Your task to perform on an android device: Go to Maps Image 0: 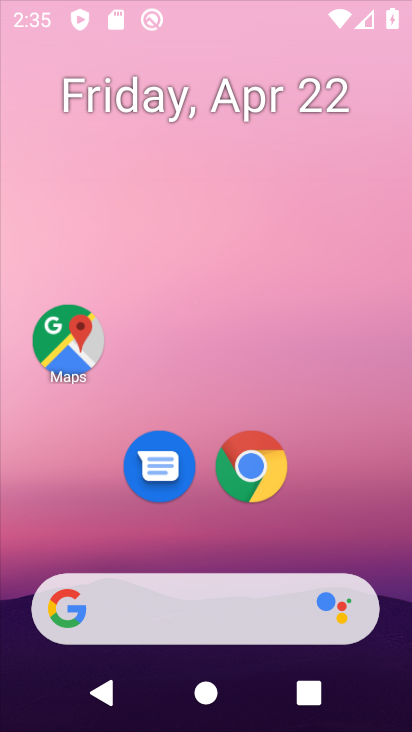
Step 0: click (255, 51)
Your task to perform on an android device: Go to Maps Image 1: 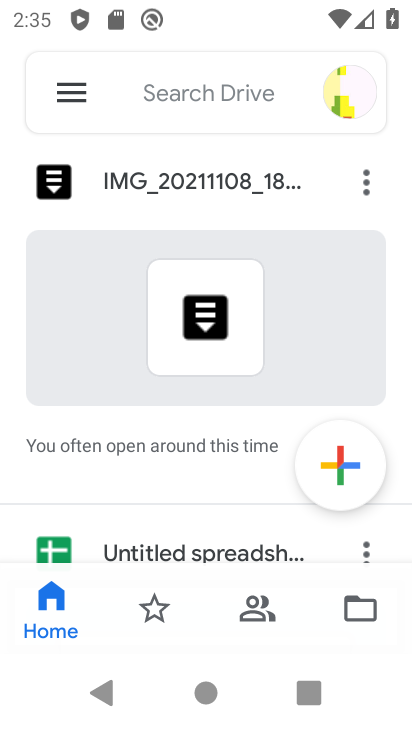
Step 1: press home button
Your task to perform on an android device: Go to Maps Image 2: 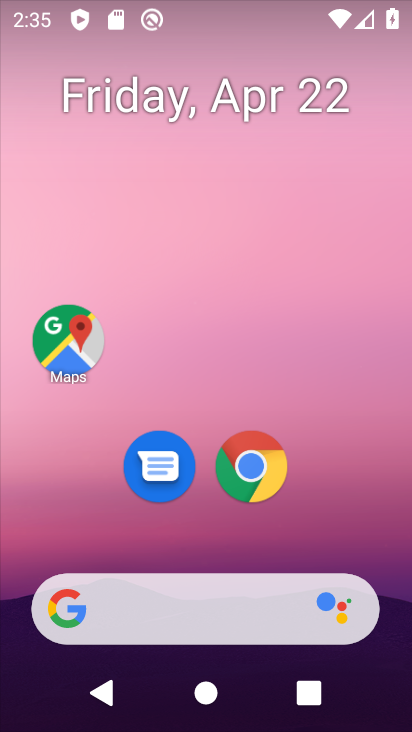
Step 2: click (84, 321)
Your task to perform on an android device: Go to Maps Image 3: 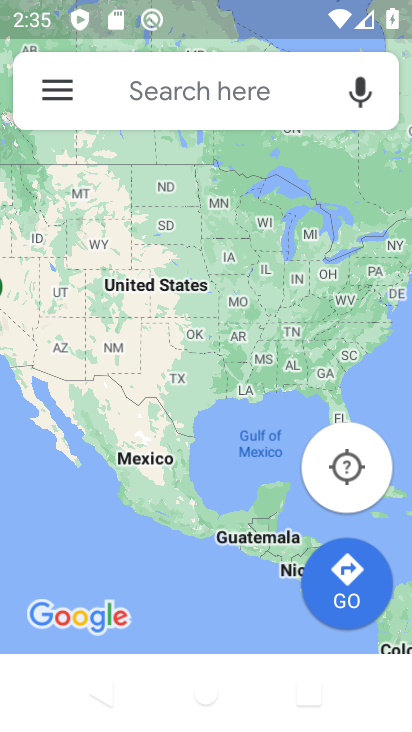
Step 3: task complete